Your task to perform on an android device: Show me popular videos on Youtube Image 0: 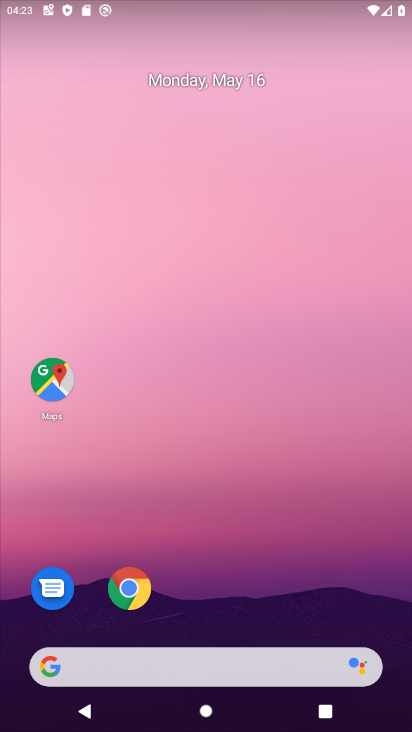
Step 0: drag from (250, 487) to (79, 8)
Your task to perform on an android device: Show me popular videos on Youtube Image 1: 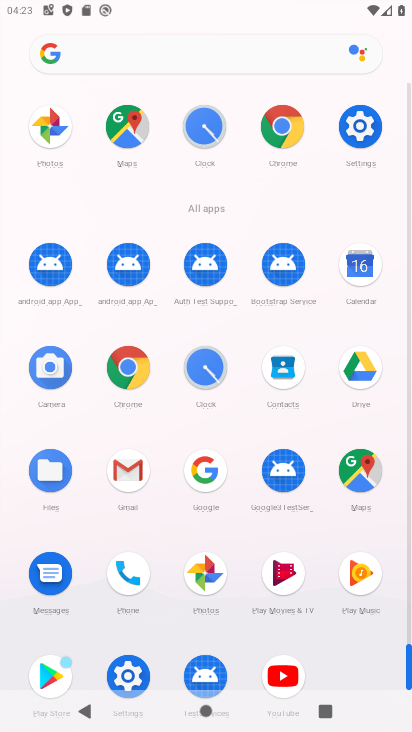
Step 1: drag from (14, 551) to (16, 191)
Your task to perform on an android device: Show me popular videos on Youtube Image 2: 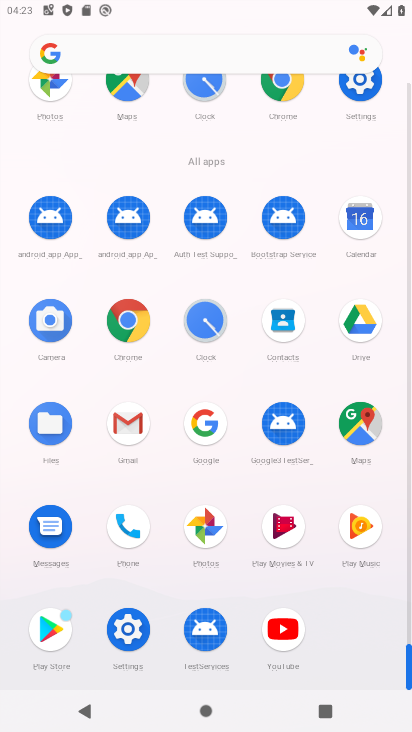
Step 2: click (282, 625)
Your task to perform on an android device: Show me popular videos on Youtube Image 3: 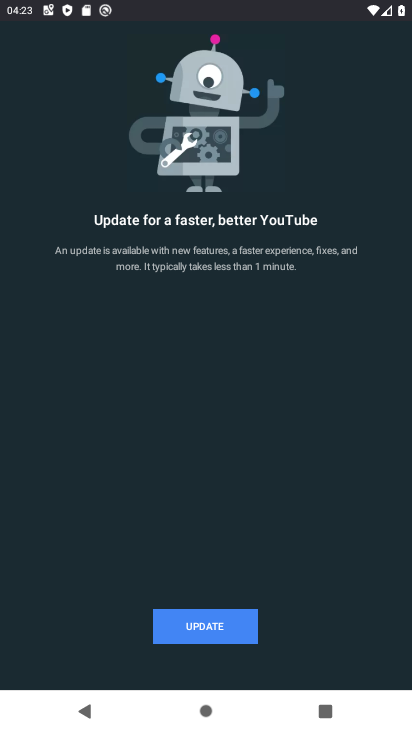
Step 3: click (234, 624)
Your task to perform on an android device: Show me popular videos on Youtube Image 4: 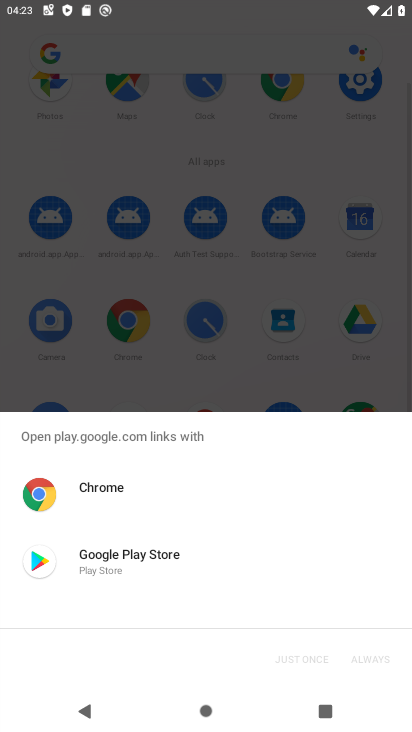
Step 4: click (116, 559)
Your task to perform on an android device: Show me popular videos on Youtube Image 5: 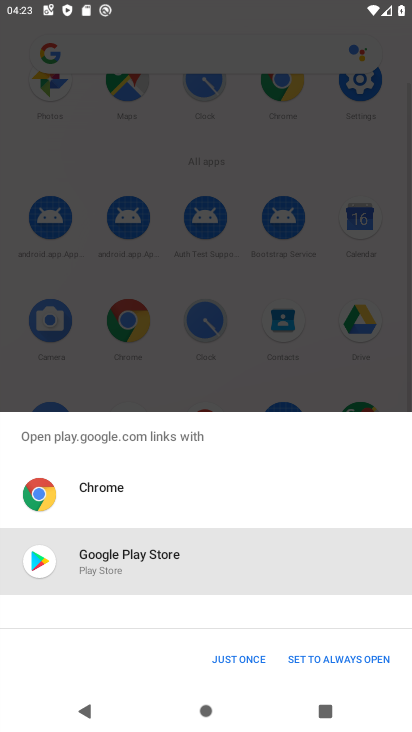
Step 5: click (218, 662)
Your task to perform on an android device: Show me popular videos on Youtube Image 6: 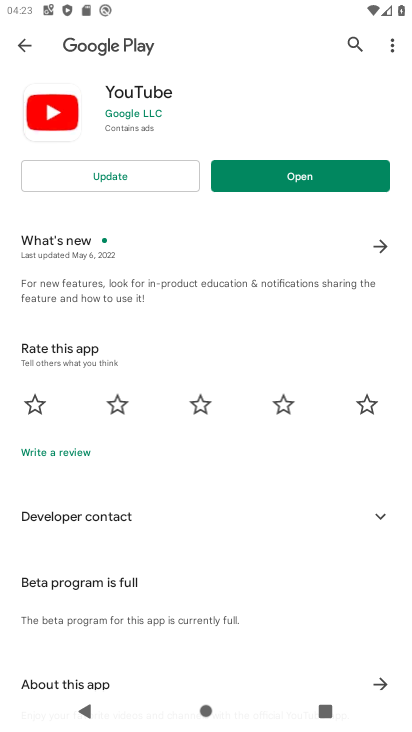
Step 6: click (150, 167)
Your task to perform on an android device: Show me popular videos on Youtube Image 7: 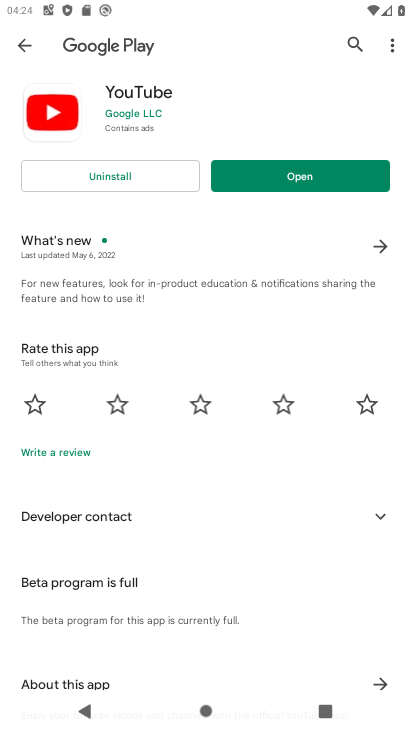
Step 7: click (298, 176)
Your task to perform on an android device: Show me popular videos on Youtube Image 8: 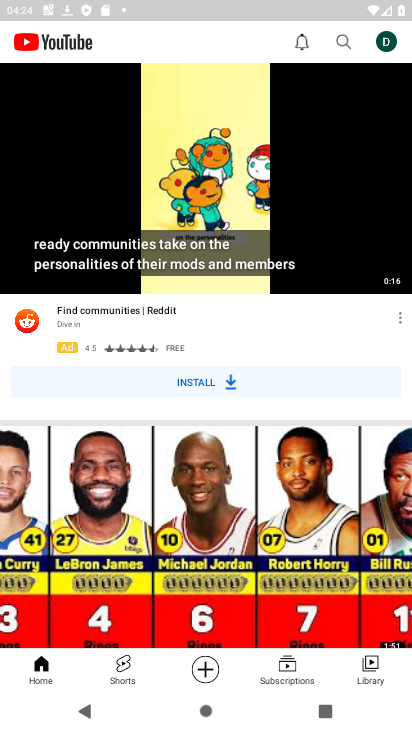
Step 8: click (358, 669)
Your task to perform on an android device: Show me popular videos on Youtube Image 9: 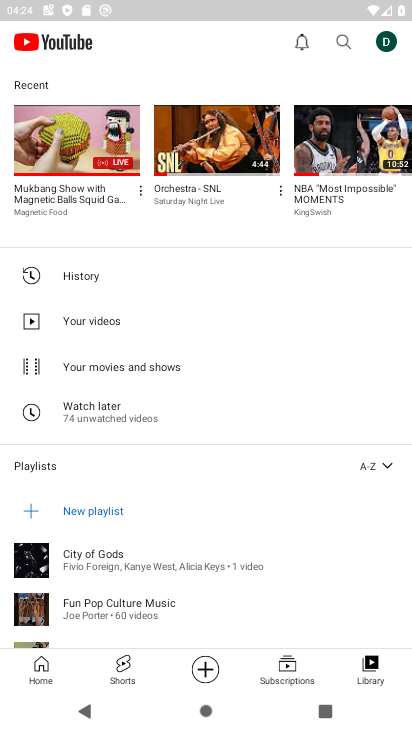
Step 9: click (29, 676)
Your task to perform on an android device: Show me popular videos on Youtube Image 10: 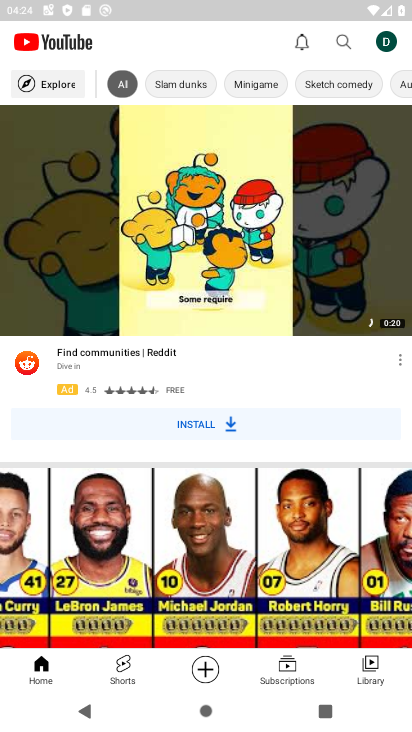
Step 10: click (53, 83)
Your task to perform on an android device: Show me popular videos on Youtube Image 11: 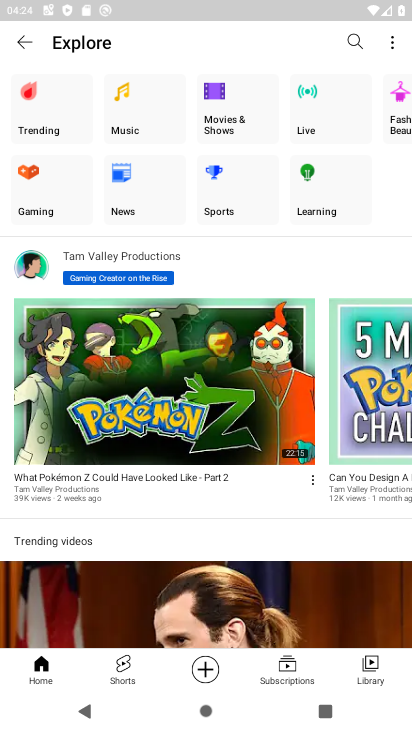
Step 11: click (44, 99)
Your task to perform on an android device: Show me popular videos on Youtube Image 12: 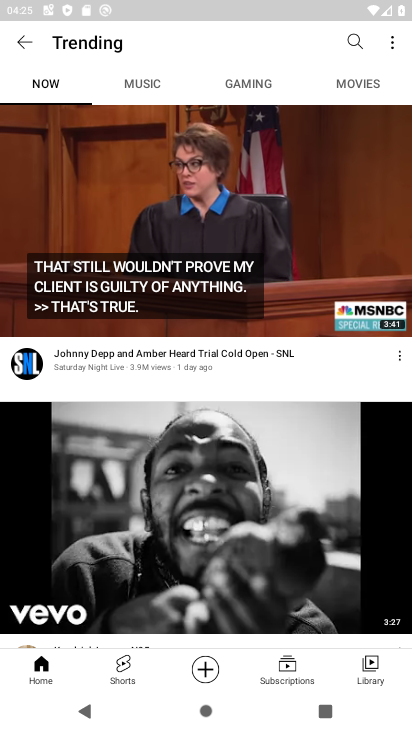
Step 12: task complete